Your task to perform on an android device: turn on wifi Image 0: 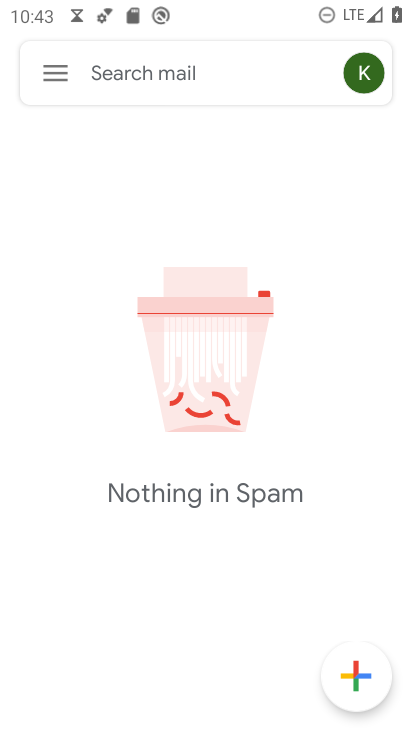
Step 0: press home button
Your task to perform on an android device: turn on wifi Image 1: 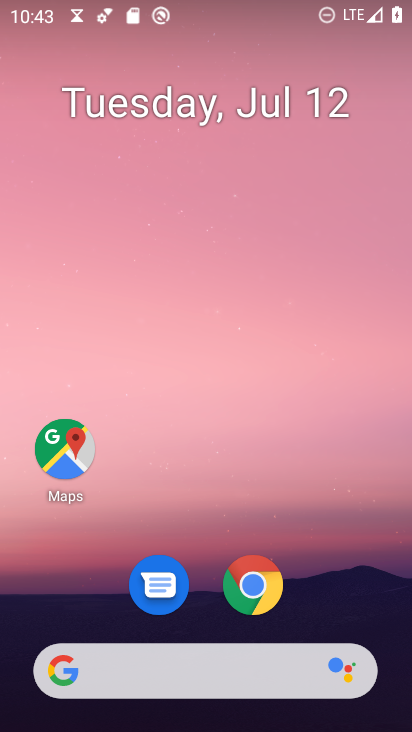
Step 1: drag from (193, 676) to (319, 87)
Your task to perform on an android device: turn on wifi Image 2: 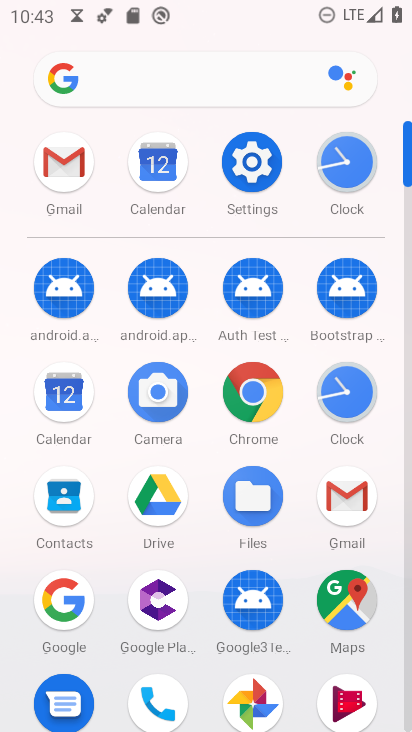
Step 2: click (225, 191)
Your task to perform on an android device: turn on wifi Image 3: 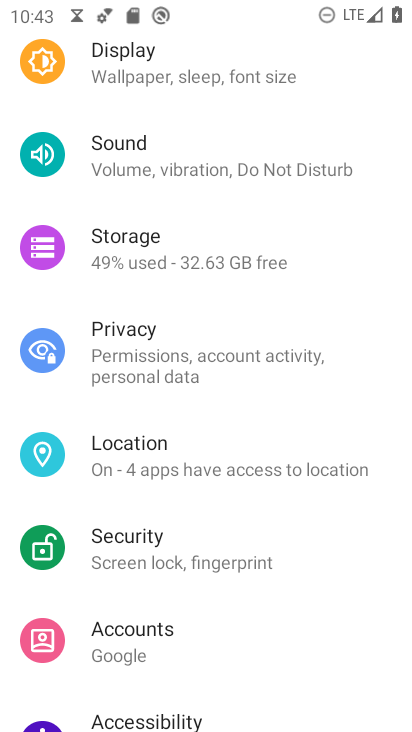
Step 3: drag from (318, 113) to (241, 596)
Your task to perform on an android device: turn on wifi Image 4: 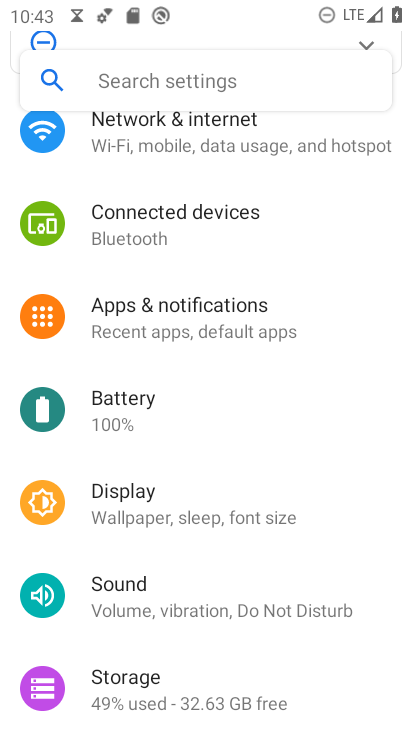
Step 4: drag from (296, 231) to (233, 632)
Your task to perform on an android device: turn on wifi Image 5: 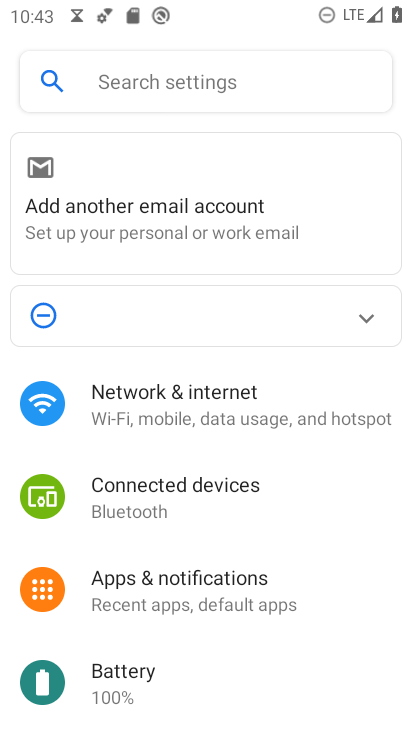
Step 5: click (194, 392)
Your task to perform on an android device: turn on wifi Image 6: 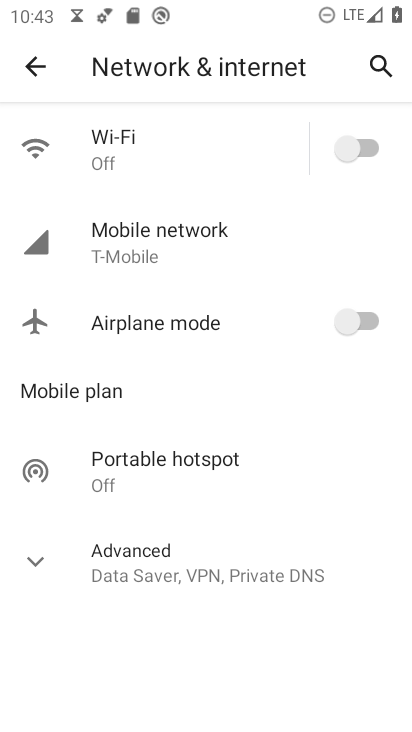
Step 6: click (366, 152)
Your task to perform on an android device: turn on wifi Image 7: 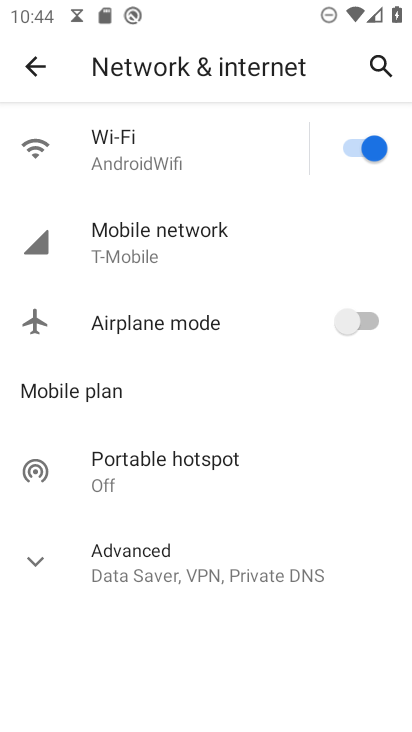
Step 7: task complete